Your task to perform on an android device: turn notification dots on Image 0: 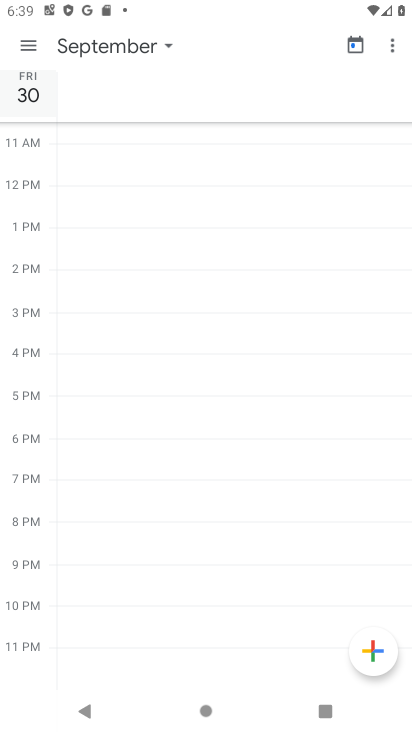
Step 0: press home button
Your task to perform on an android device: turn notification dots on Image 1: 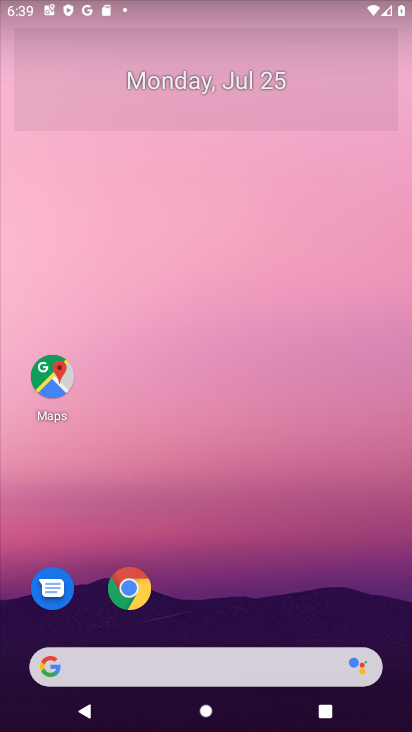
Step 1: drag from (297, 514) to (343, 77)
Your task to perform on an android device: turn notification dots on Image 2: 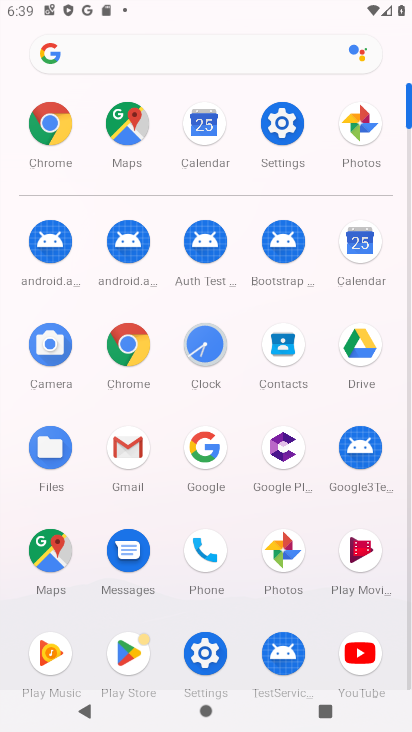
Step 2: click (281, 126)
Your task to perform on an android device: turn notification dots on Image 3: 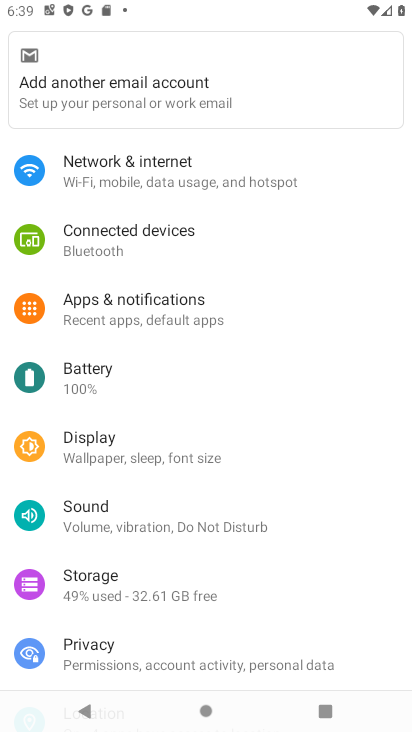
Step 3: task complete